Your task to perform on an android device: Open network settings Image 0: 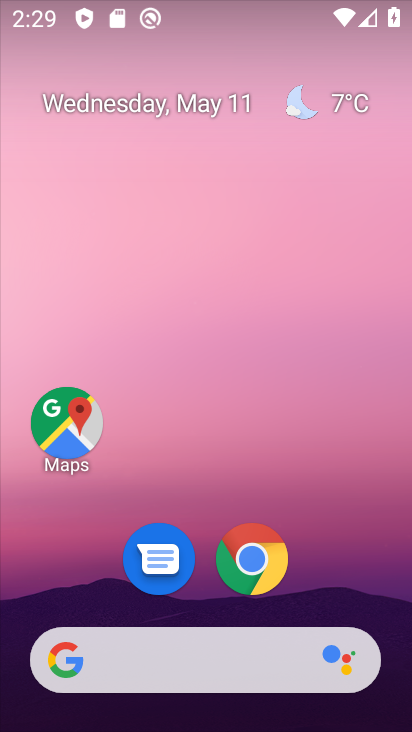
Step 0: drag from (336, 574) to (333, 142)
Your task to perform on an android device: Open network settings Image 1: 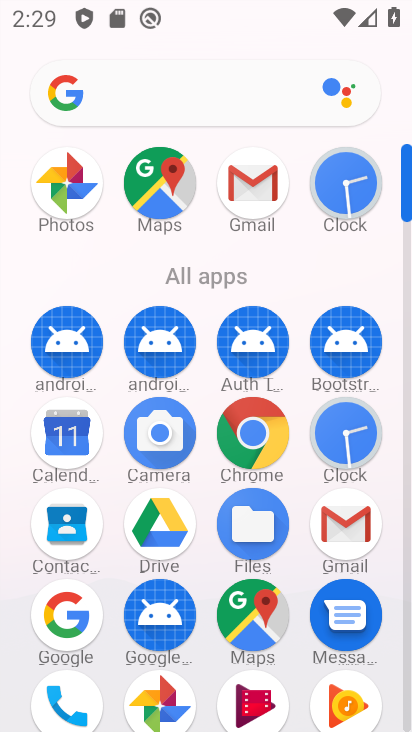
Step 1: drag from (227, 642) to (227, 255)
Your task to perform on an android device: Open network settings Image 2: 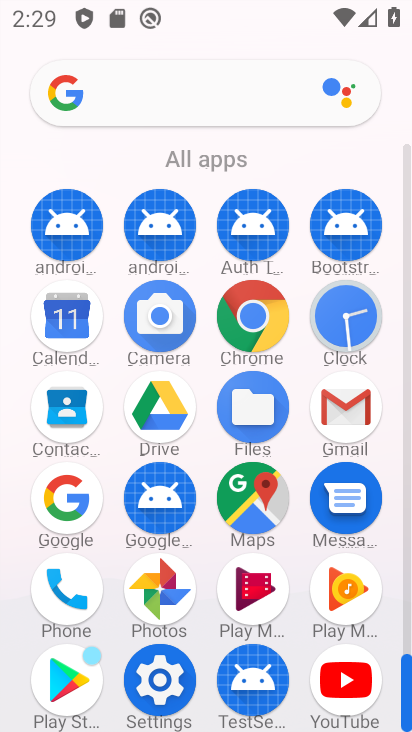
Step 2: click (153, 714)
Your task to perform on an android device: Open network settings Image 3: 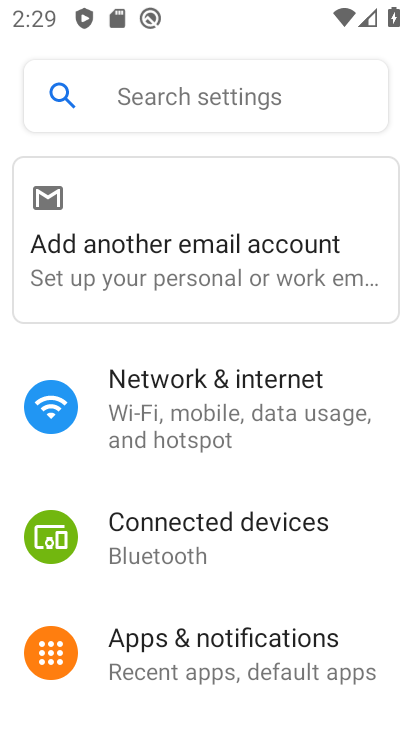
Step 3: click (213, 412)
Your task to perform on an android device: Open network settings Image 4: 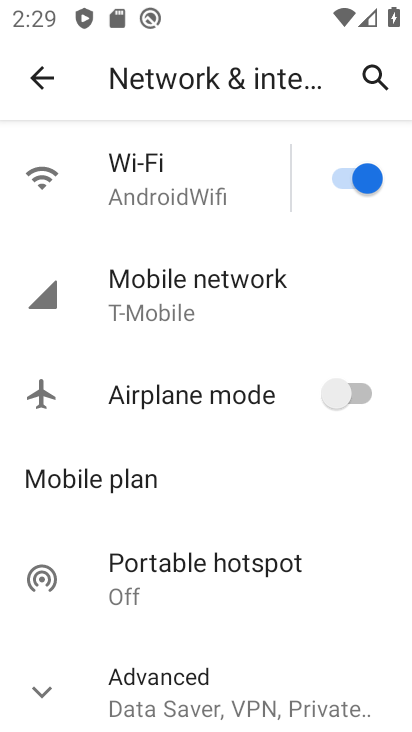
Step 4: task complete